Your task to perform on an android device: What's the weather going to be this weekend? Image 0: 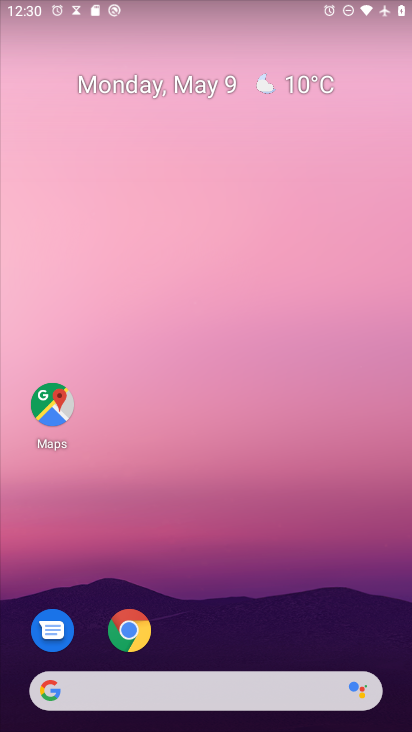
Step 0: click (47, 699)
Your task to perform on an android device: What's the weather going to be this weekend? Image 1: 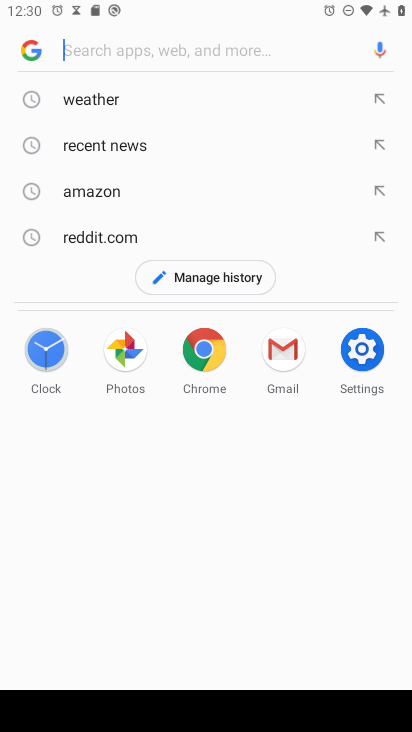
Step 1: click (96, 95)
Your task to perform on an android device: What's the weather going to be this weekend? Image 2: 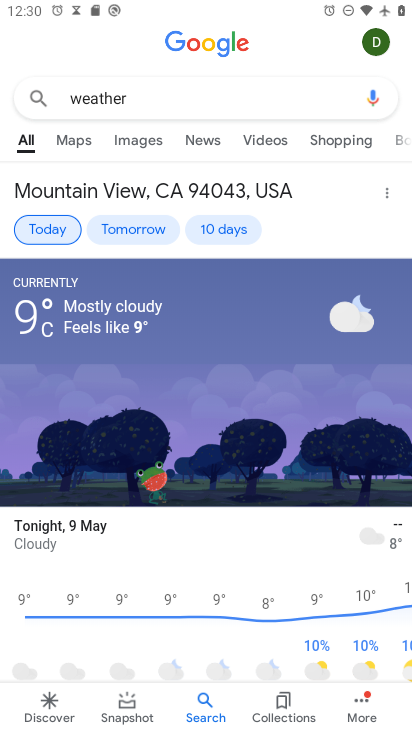
Step 2: click (227, 219)
Your task to perform on an android device: What's the weather going to be this weekend? Image 3: 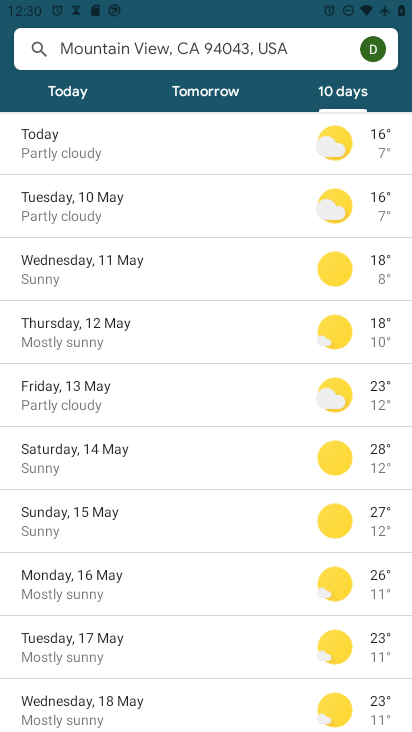
Step 3: click (109, 448)
Your task to perform on an android device: What's the weather going to be this weekend? Image 4: 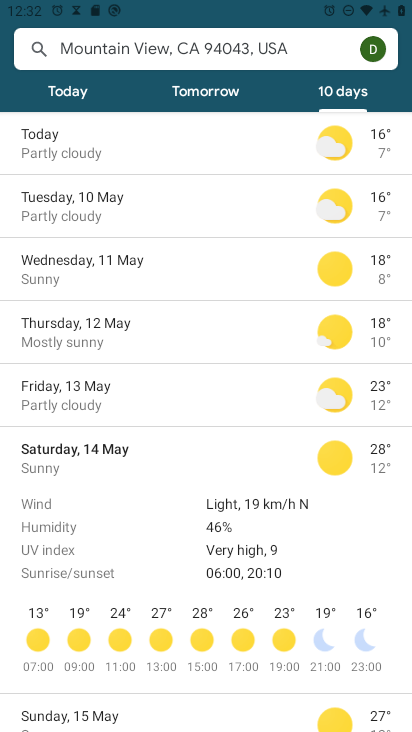
Step 4: task complete